Your task to perform on an android device: Open calendar and show me the first week of next month Image 0: 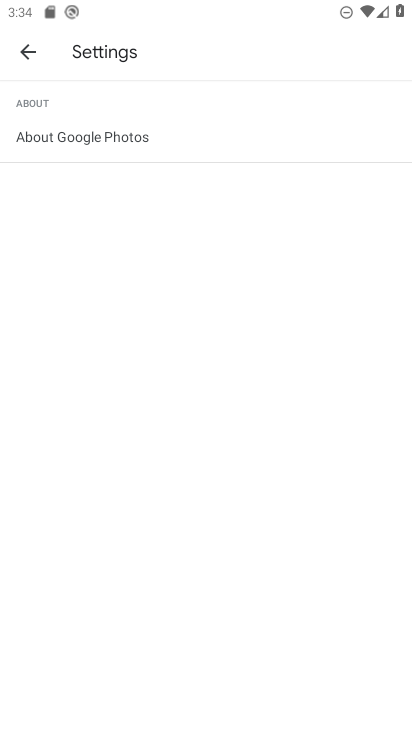
Step 0: press home button
Your task to perform on an android device: Open calendar and show me the first week of next month Image 1: 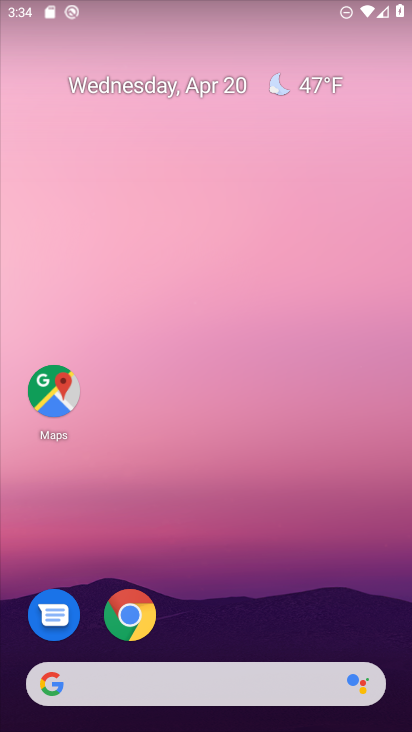
Step 1: drag from (230, 495) to (249, 38)
Your task to perform on an android device: Open calendar and show me the first week of next month Image 2: 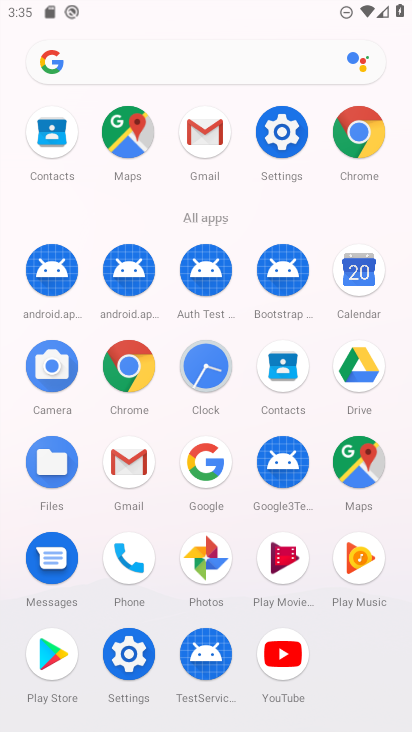
Step 2: click (368, 266)
Your task to perform on an android device: Open calendar and show me the first week of next month Image 3: 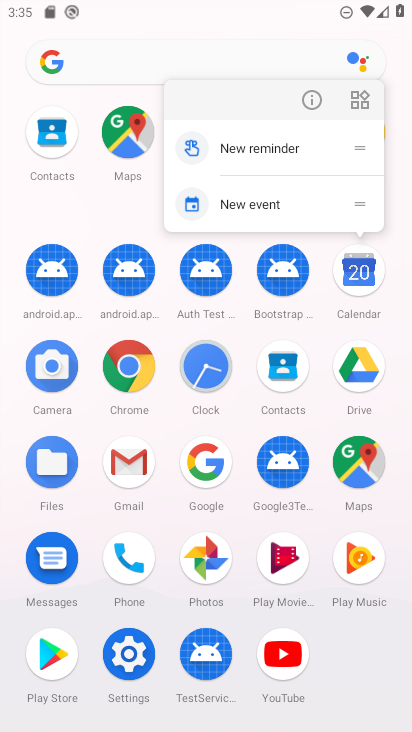
Step 3: click (368, 266)
Your task to perform on an android device: Open calendar and show me the first week of next month Image 4: 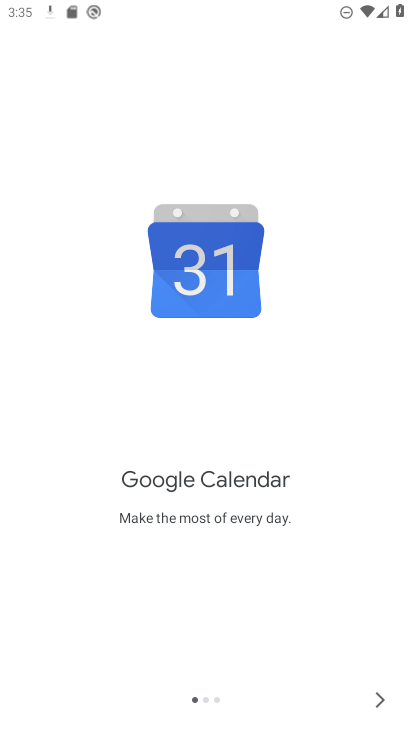
Step 4: click (375, 699)
Your task to perform on an android device: Open calendar and show me the first week of next month Image 5: 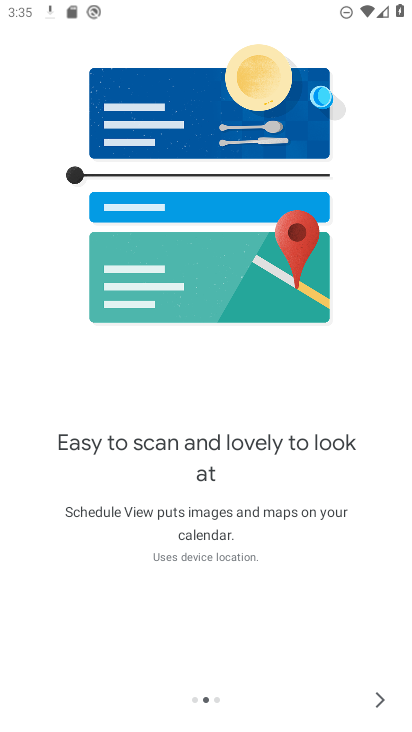
Step 5: click (375, 699)
Your task to perform on an android device: Open calendar and show me the first week of next month Image 6: 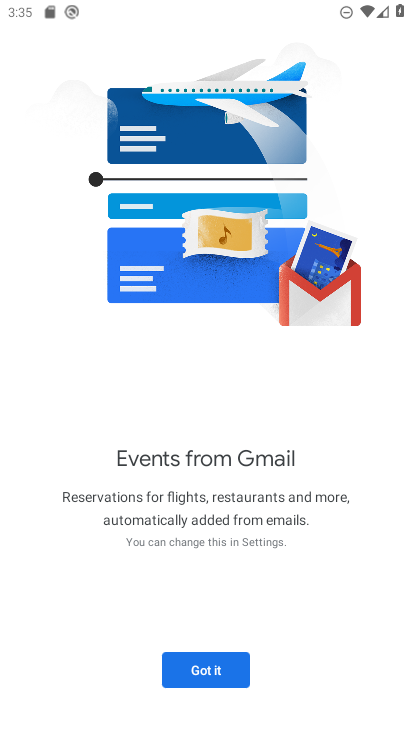
Step 6: click (242, 675)
Your task to perform on an android device: Open calendar and show me the first week of next month Image 7: 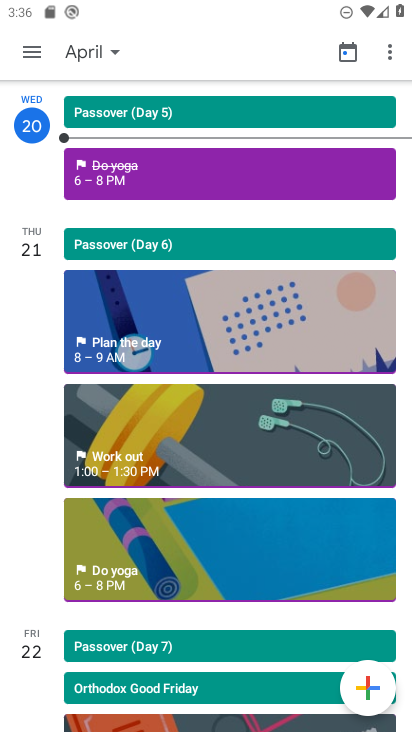
Step 7: click (91, 47)
Your task to perform on an android device: Open calendar and show me the first week of next month Image 8: 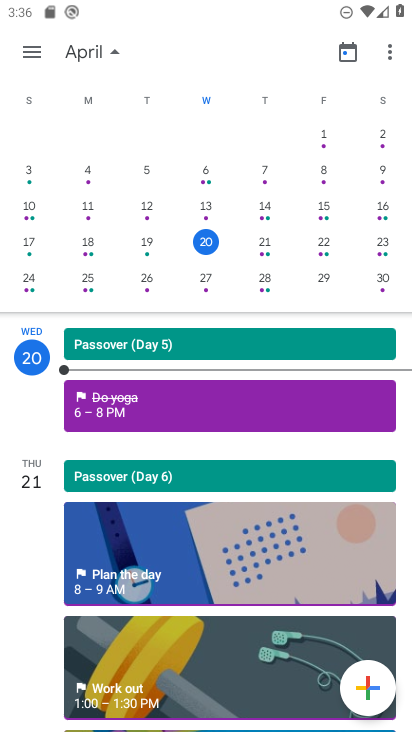
Step 8: drag from (384, 204) to (0, 186)
Your task to perform on an android device: Open calendar and show me the first week of next month Image 9: 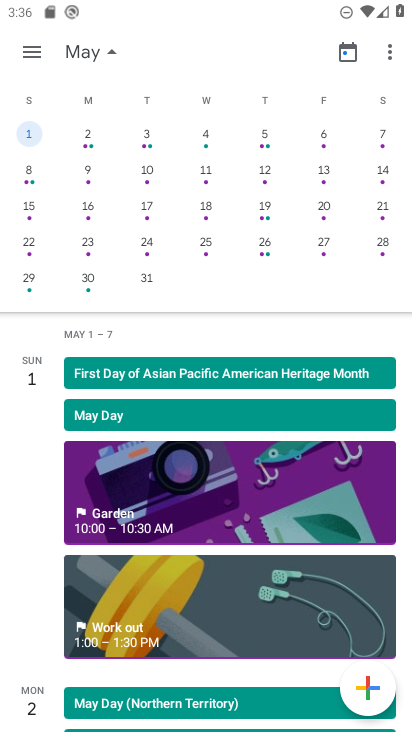
Step 9: click (27, 48)
Your task to perform on an android device: Open calendar and show me the first week of next month Image 10: 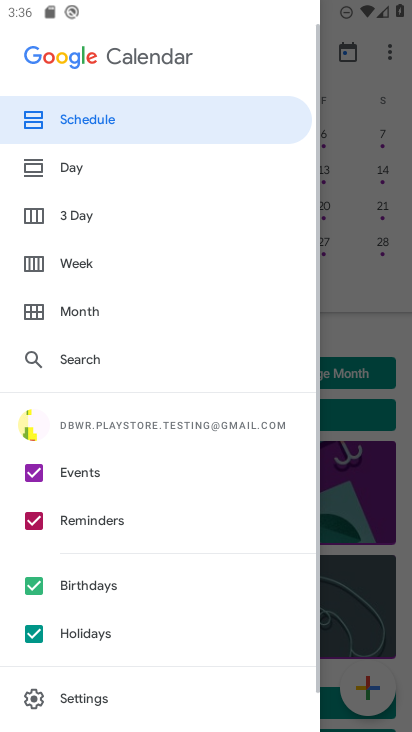
Step 10: click (98, 264)
Your task to perform on an android device: Open calendar and show me the first week of next month Image 11: 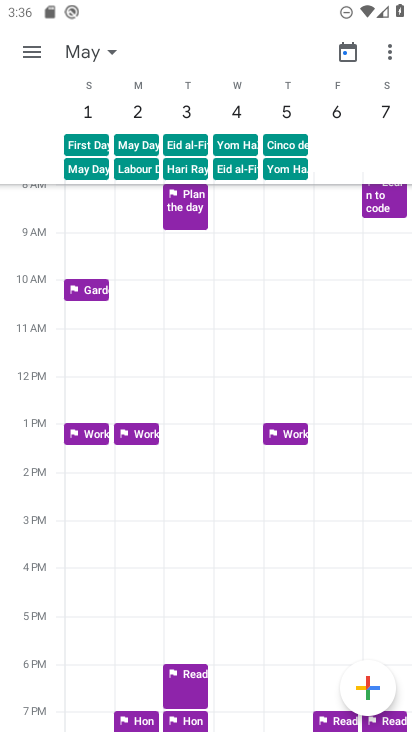
Step 11: task complete